Your task to perform on an android device: Toggle the flashlight Image 0: 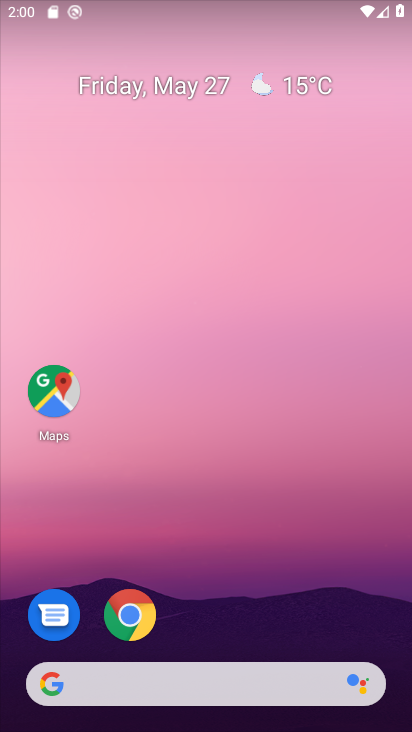
Step 0: drag from (220, 6) to (239, 618)
Your task to perform on an android device: Toggle the flashlight Image 1: 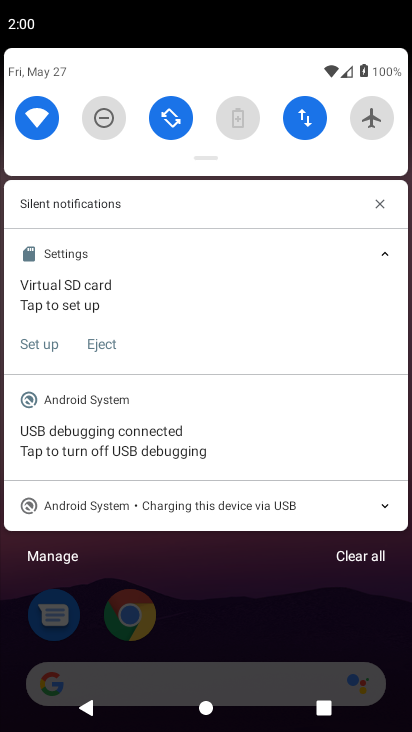
Step 1: task complete